Your task to perform on an android device: turn pop-ups on in chrome Image 0: 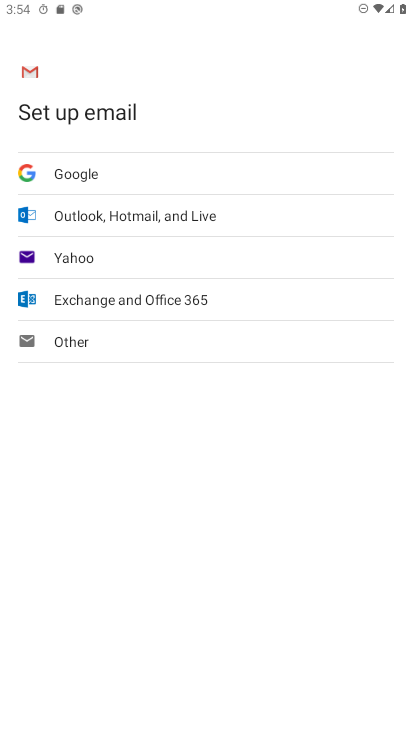
Step 0: press home button
Your task to perform on an android device: turn pop-ups on in chrome Image 1: 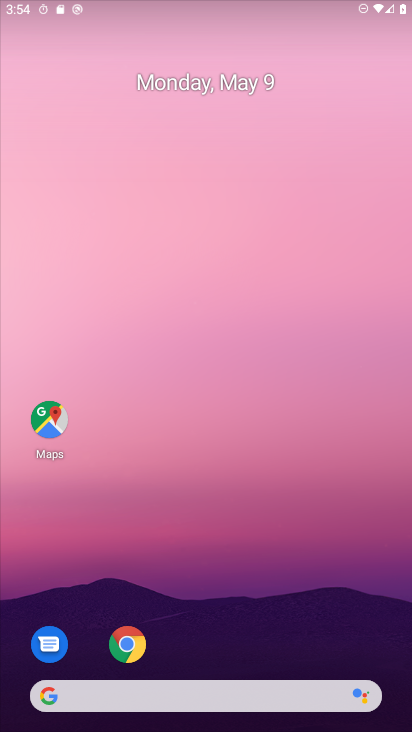
Step 1: drag from (266, 464) to (269, 137)
Your task to perform on an android device: turn pop-ups on in chrome Image 2: 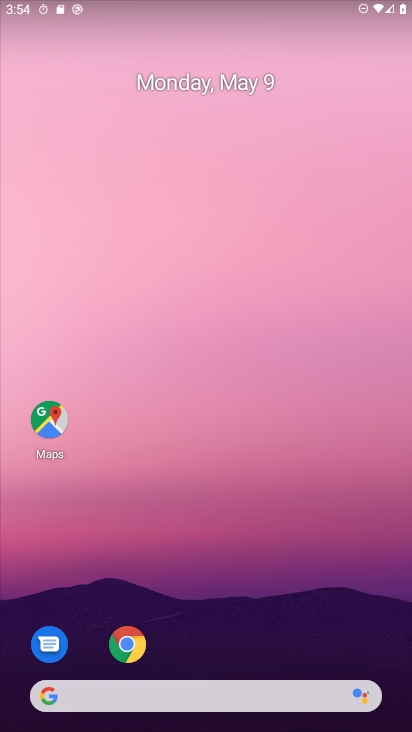
Step 2: drag from (246, 496) to (252, 167)
Your task to perform on an android device: turn pop-ups on in chrome Image 3: 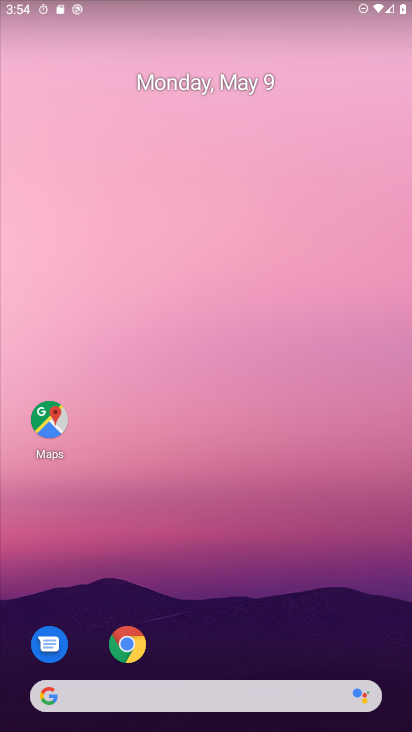
Step 3: drag from (194, 497) to (219, 87)
Your task to perform on an android device: turn pop-ups on in chrome Image 4: 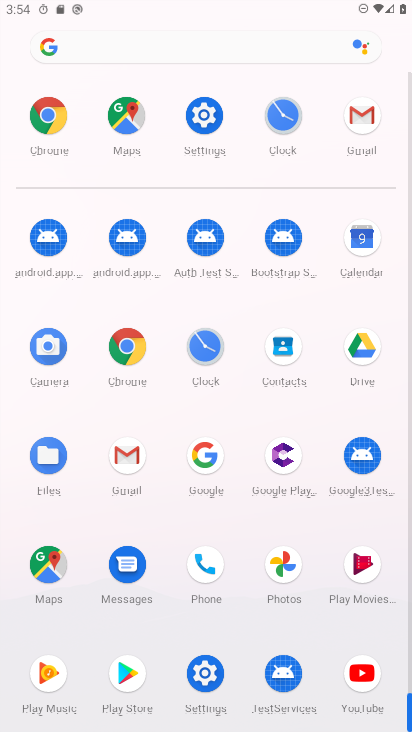
Step 4: click (132, 383)
Your task to perform on an android device: turn pop-ups on in chrome Image 5: 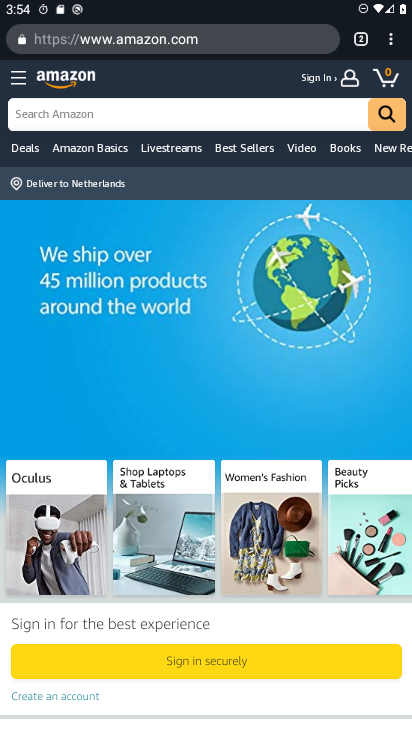
Step 5: click (397, 32)
Your task to perform on an android device: turn pop-ups on in chrome Image 6: 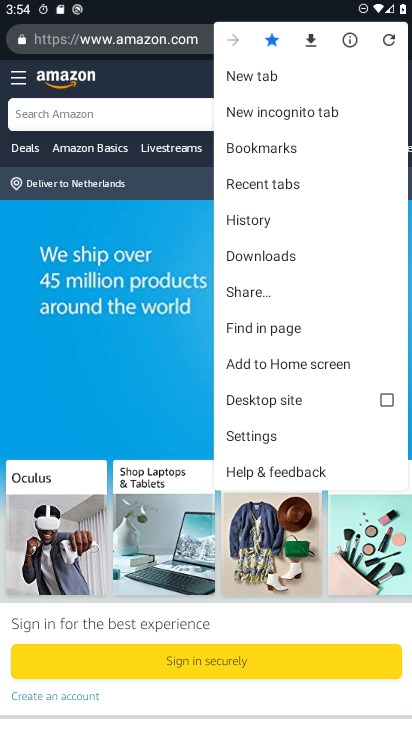
Step 6: click (264, 434)
Your task to perform on an android device: turn pop-ups on in chrome Image 7: 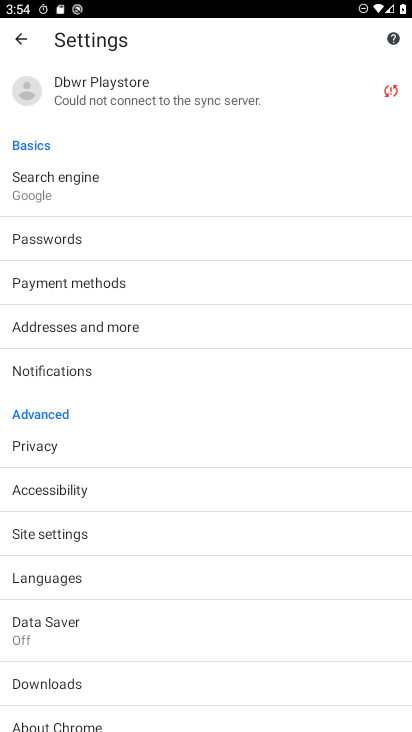
Step 7: drag from (90, 652) to (146, 327)
Your task to perform on an android device: turn pop-ups on in chrome Image 8: 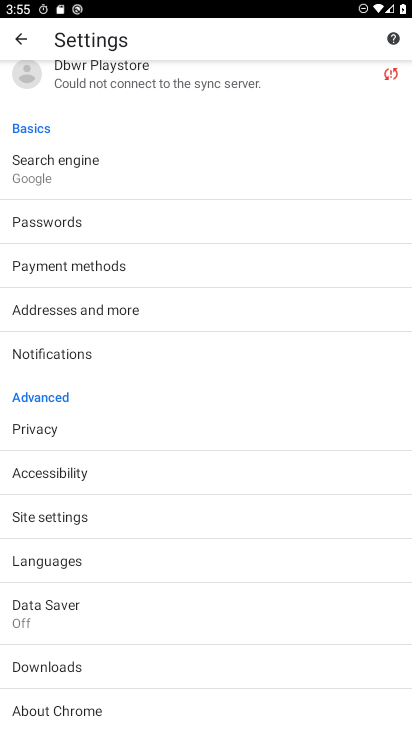
Step 8: click (61, 513)
Your task to perform on an android device: turn pop-ups on in chrome Image 9: 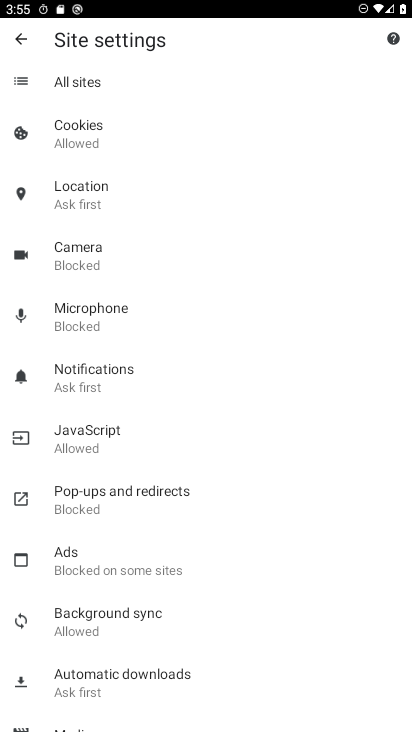
Step 9: click (122, 516)
Your task to perform on an android device: turn pop-ups on in chrome Image 10: 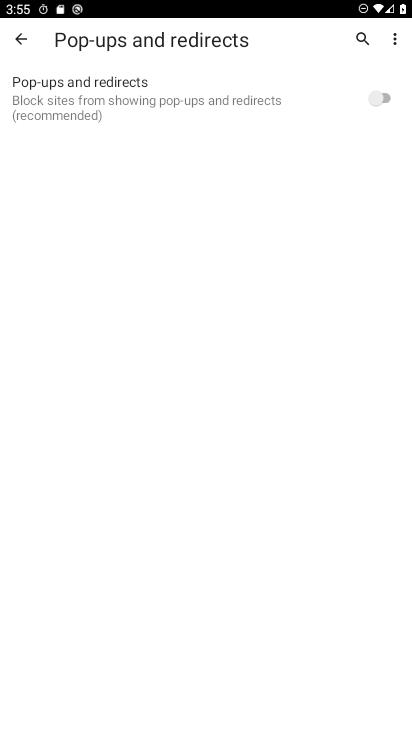
Step 10: click (389, 99)
Your task to perform on an android device: turn pop-ups on in chrome Image 11: 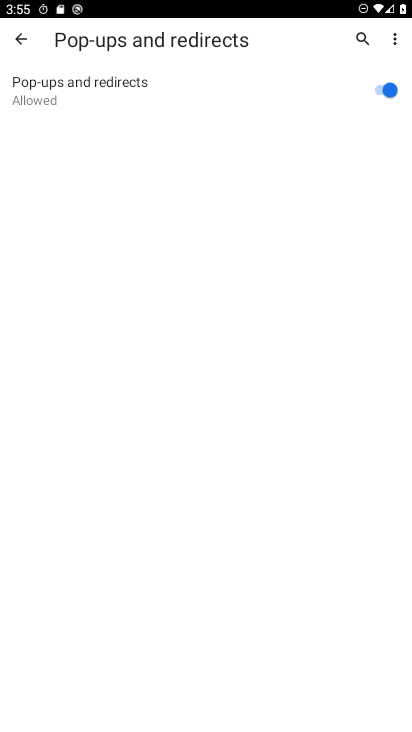
Step 11: task complete